Your task to perform on an android device: Open the stopwatch Image 0: 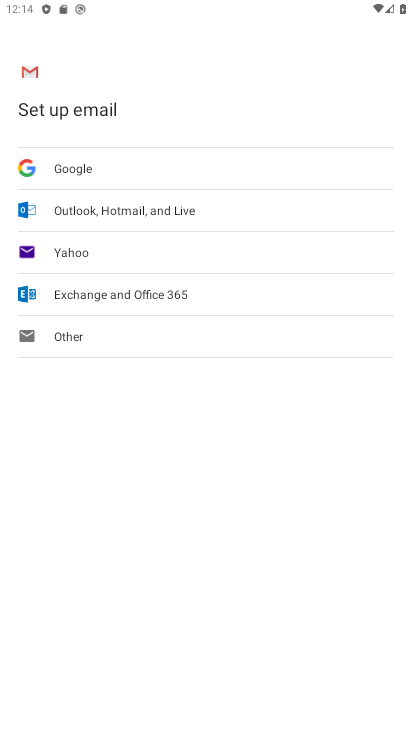
Step 0: drag from (242, 645) to (299, 458)
Your task to perform on an android device: Open the stopwatch Image 1: 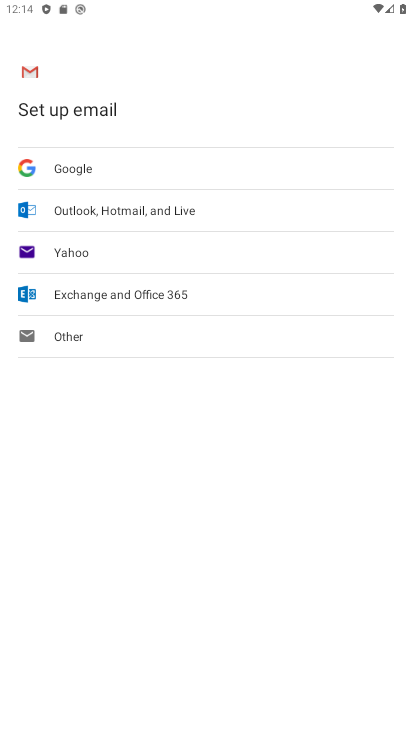
Step 1: press home button
Your task to perform on an android device: Open the stopwatch Image 2: 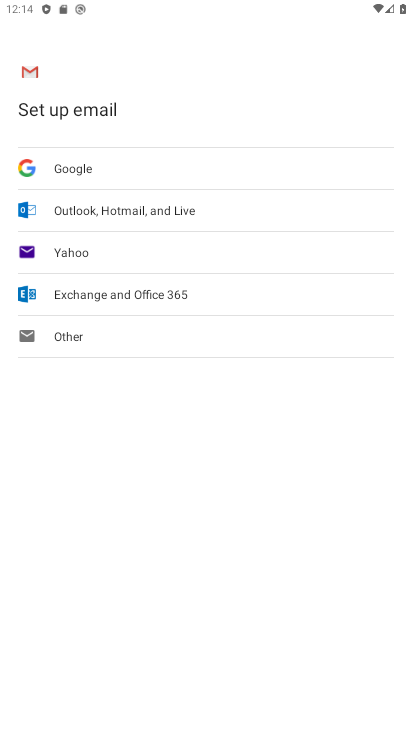
Step 2: press home button
Your task to perform on an android device: Open the stopwatch Image 3: 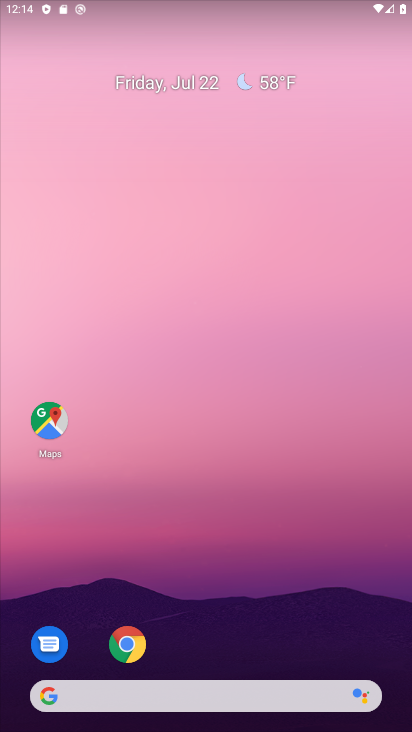
Step 3: drag from (221, 660) to (335, 3)
Your task to perform on an android device: Open the stopwatch Image 4: 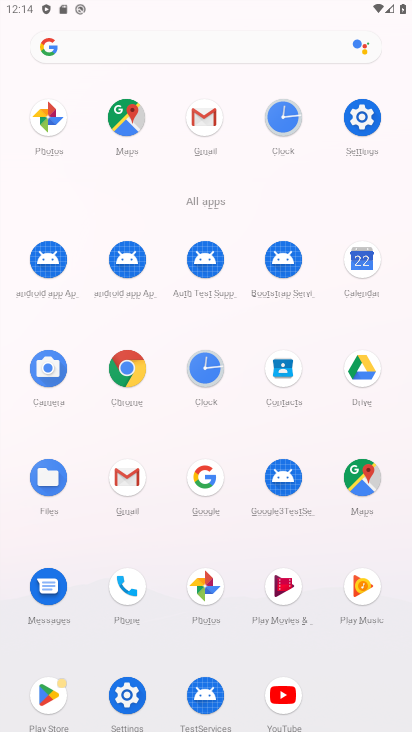
Step 4: click (195, 366)
Your task to perform on an android device: Open the stopwatch Image 5: 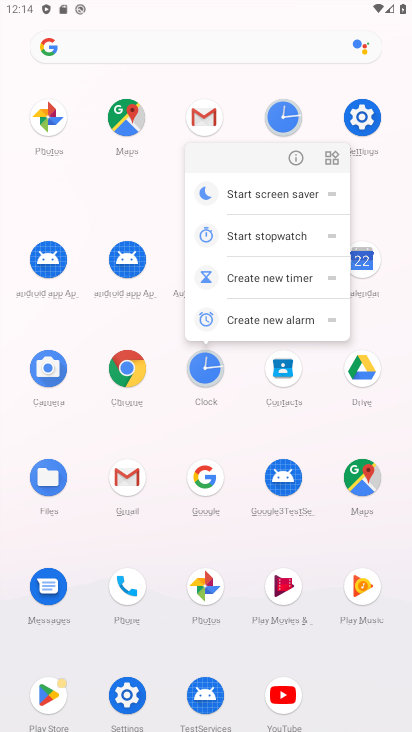
Step 5: click (290, 159)
Your task to perform on an android device: Open the stopwatch Image 6: 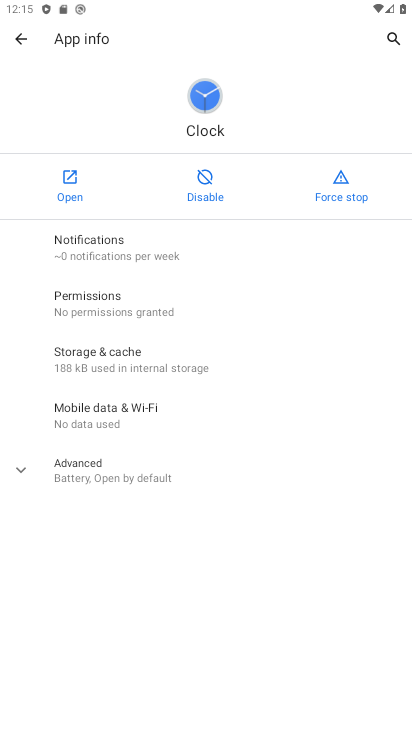
Step 6: click (73, 181)
Your task to perform on an android device: Open the stopwatch Image 7: 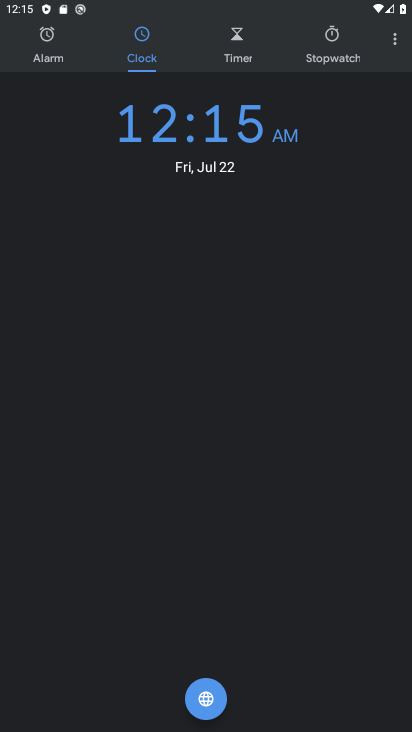
Step 7: click (317, 33)
Your task to perform on an android device: Open the stopwatch Image 8: 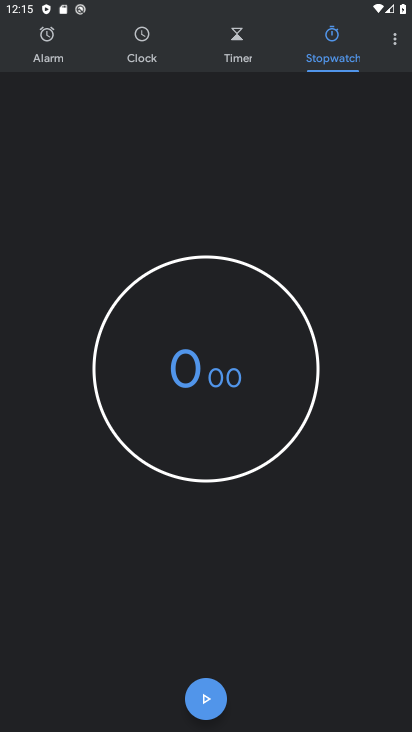
Step 8: drag from (268, 561) to (338, 338)
Your task to perform on an android device: Open the stopwatch Image 9: 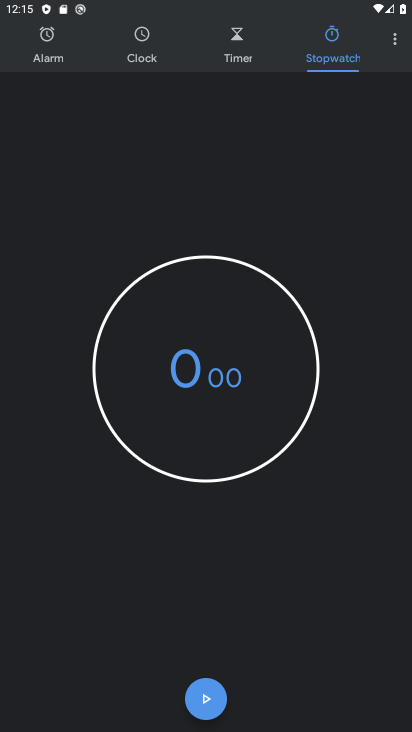
Step 9: click (214, 697)
Your task to perform on an android device: Open the stopwatch Image 10: 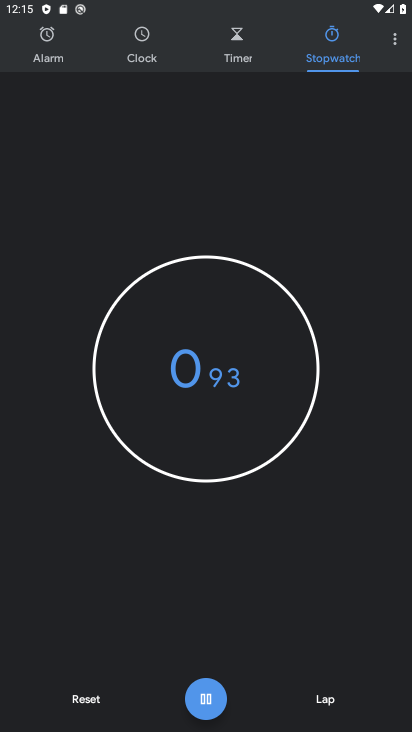
Step 10: task complete